Your task to perform on an android device: Open Google Chrome and open the bookmarks view Image 0: 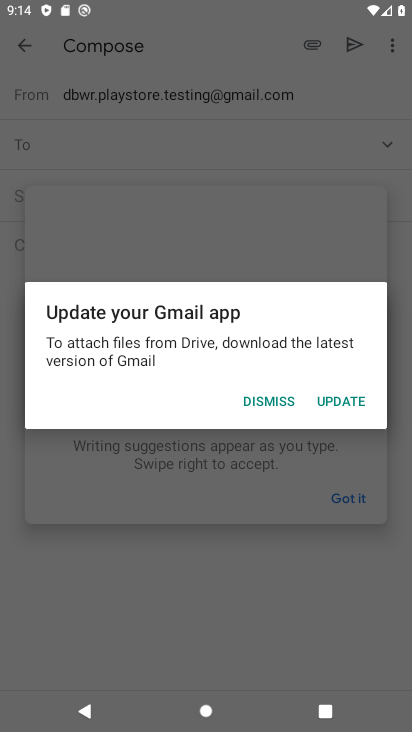
Step 0: press home button
Your task to perform on an android device: Open Google Chrome and open the bookmarks view Image 1: 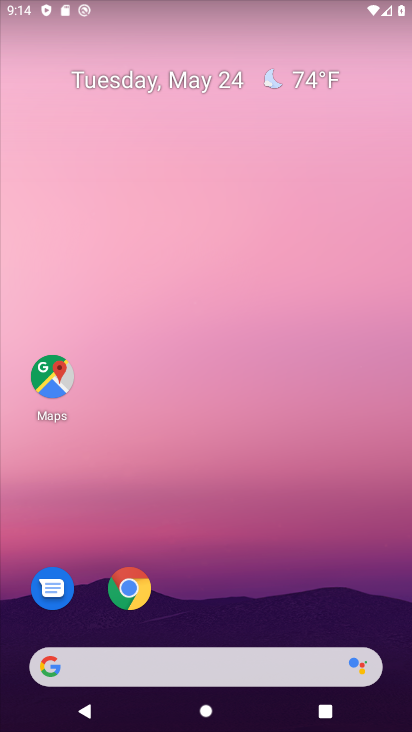
Step 1: click (138, 592)
Your task to perform on an android device: Open Google Chrome and open the bookmarks view Image 2: 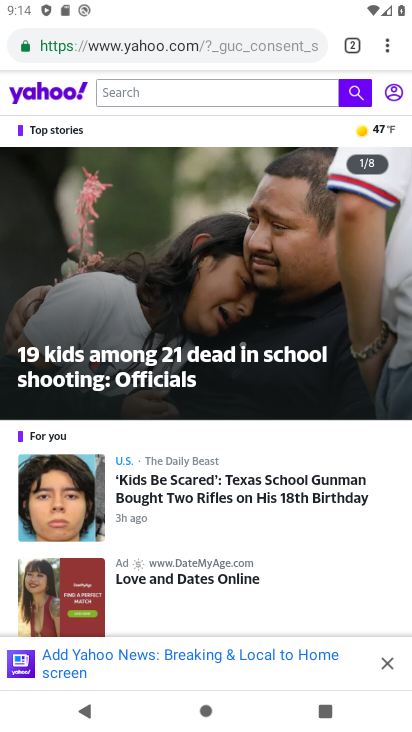
Step 2: click (397, 48)
Your task to perform on an android device: Open Google Chrome and open the bookmarks view Image 3: 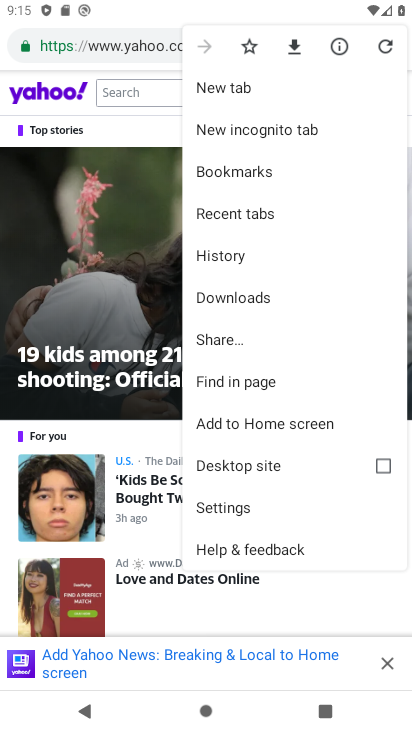
Step 3: click (240, 178)
Your task to perform on an android device: Open Google Chrome and open the bookmarks view Image 4: 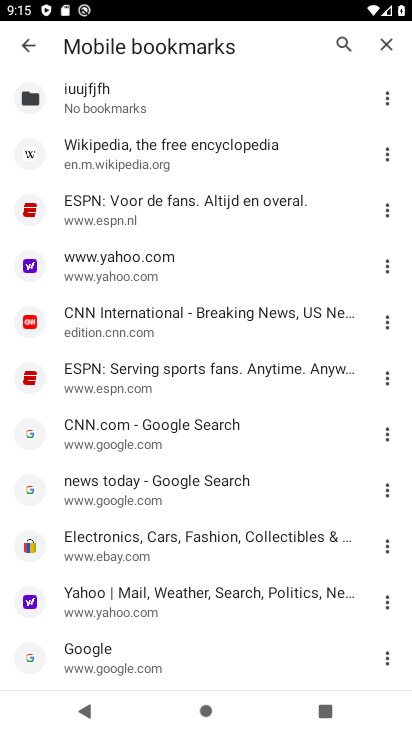
Step 4: task complete